Your task to perform on an android device: turn on priority inbox in the gmail app Image 0: 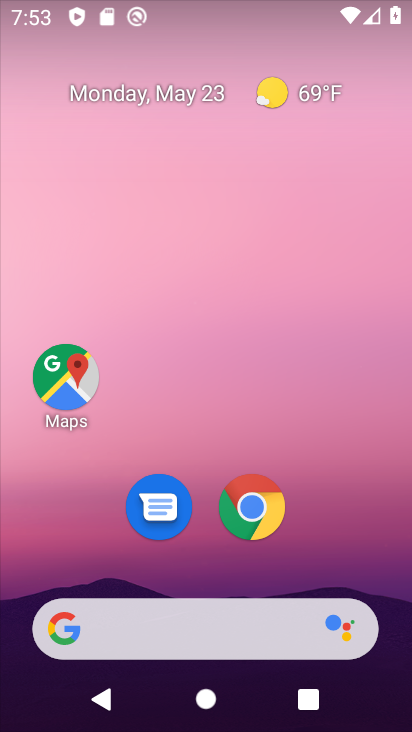
Step 0: drag from (350, 593) to (388, 0)
Your task to perform on an android device: turn on priority inbox in the gmail app Image 1: 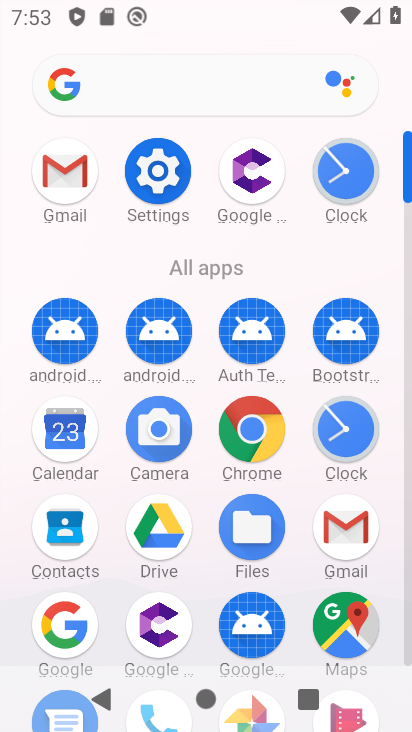
Step 1: click (66, 179)
Your task to perform on an android device: turn on priority inbox in the gmail app Image 2: 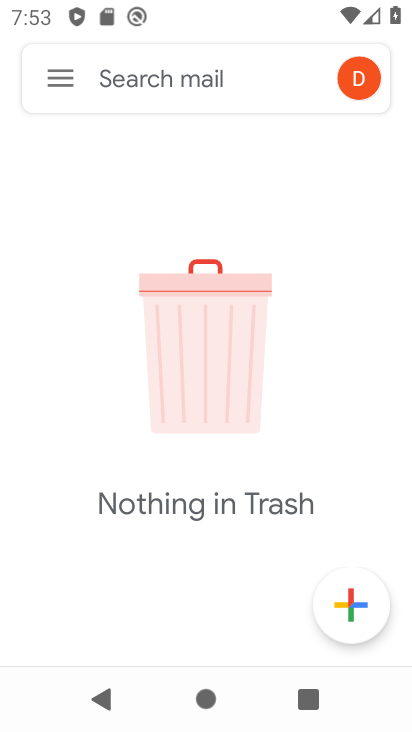
Step 2: click (59, 85)
Your task to perform on an android device: turn on priority inbox in the gmail app Image 3: 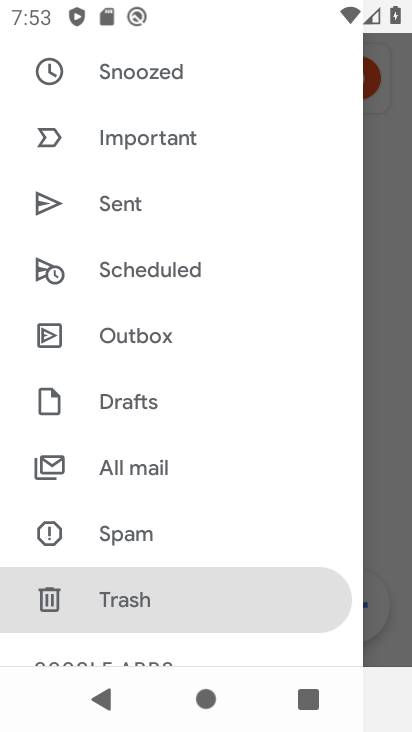
Step 3: drag from (228, 575) to (235, 119)
Your task to perform on an android device: turn on priority inbox in the gmail app Image 4: 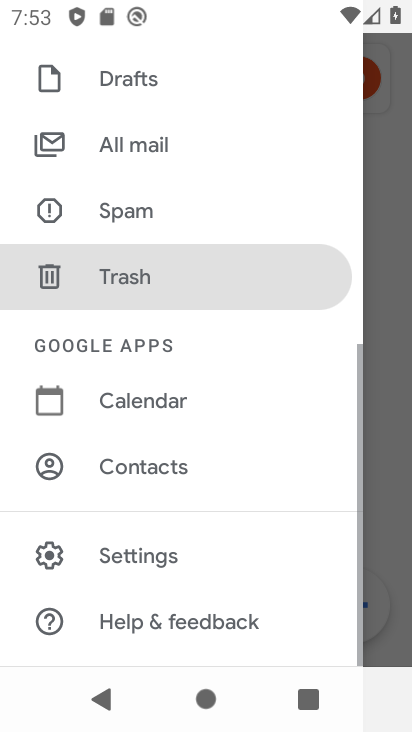
Step 4: click (144, 566)
Your task to perform on an android device: turn on priority inbox in the gmail app Image 5: 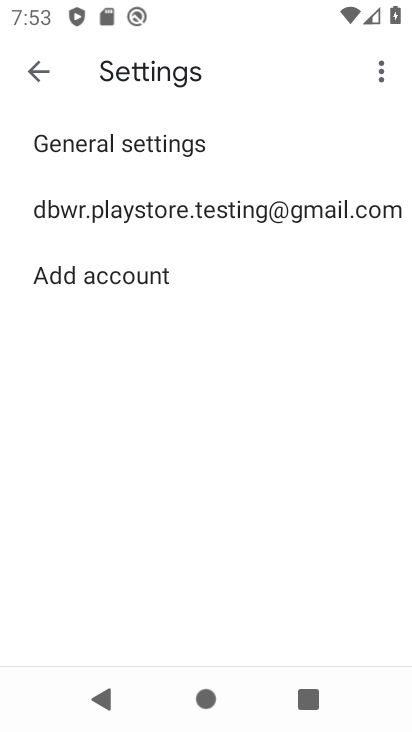
Step 5: click (149, 222)
Your task to perform on an android device: turn on priority inbox in the gmail app Image 6: 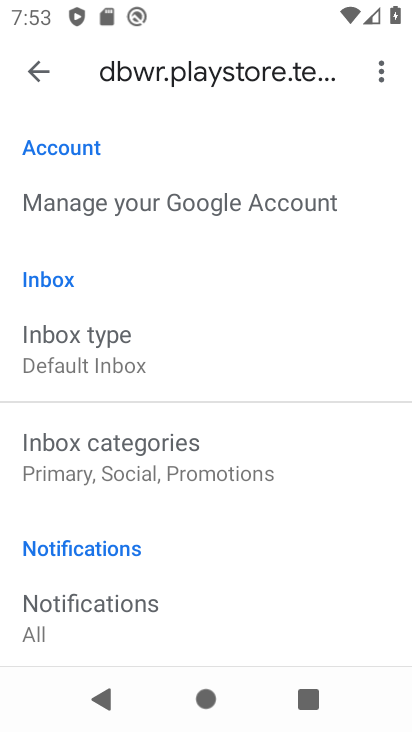
Step 6: click (84, 362)
Your task to perform on an android device: turn on priority inbox in the gmail app Image 7: 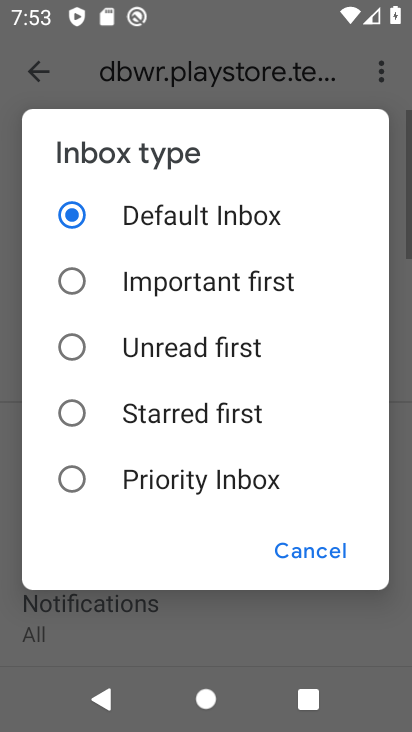
Step 7: click (112, 479)
Your task to perform on an android device: turn on priority inbox in the gmail app Image 8: 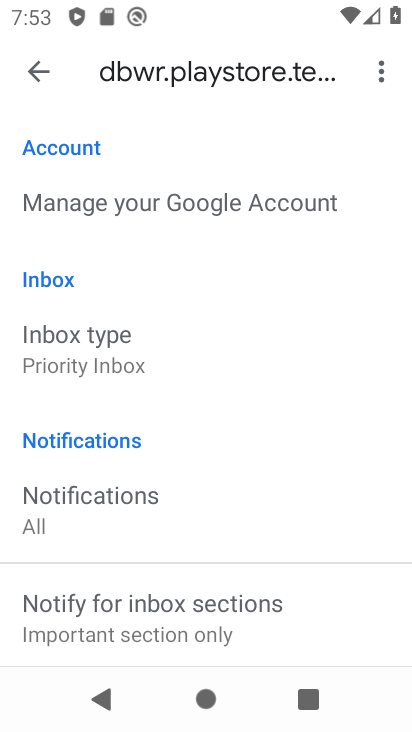
Step 8: task complete